Your task to perform on an android device: check out phone information Image 0: 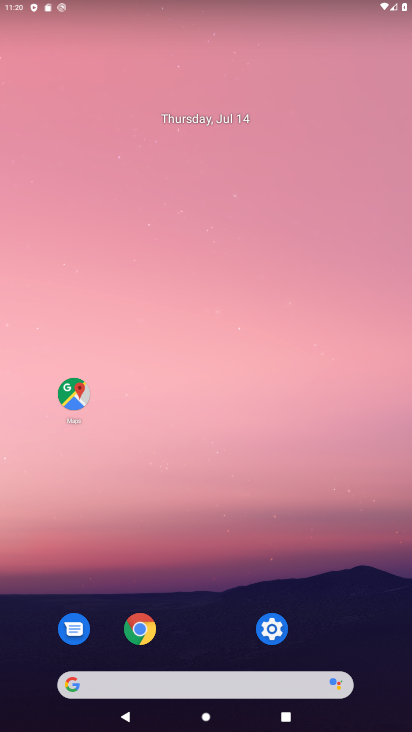
Step 0: click (269, 618)
Your task to perform on an android device: check out phone information Image 1: 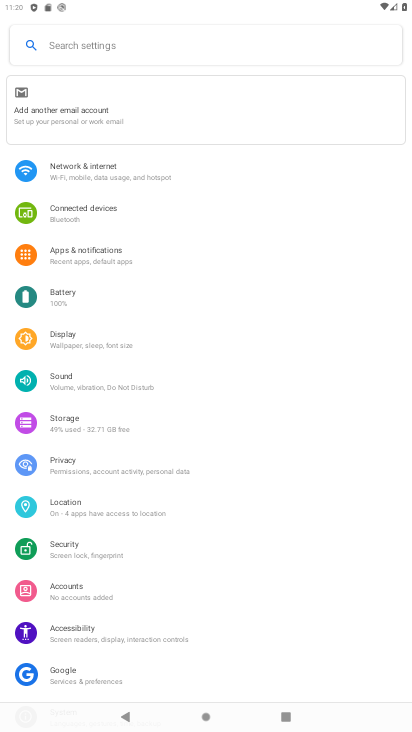
Step 1: click (70, 50)
Your task to perform on an android device: check out phone information Image 2: 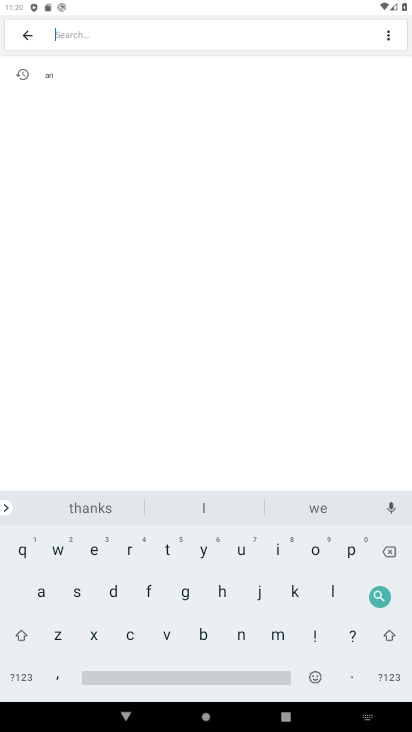
Step 2: click (37, 593)
Your task to perform on an android device: check out phone information Image 3: 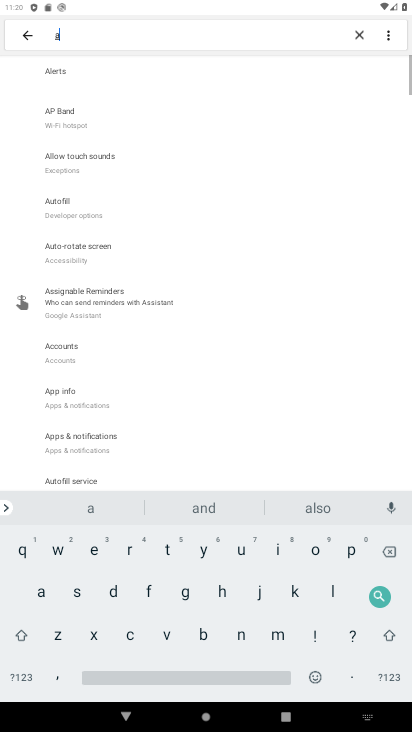
Step 3: click (201, 635)
Your task to perform on an android device: check out phone information Image 4: 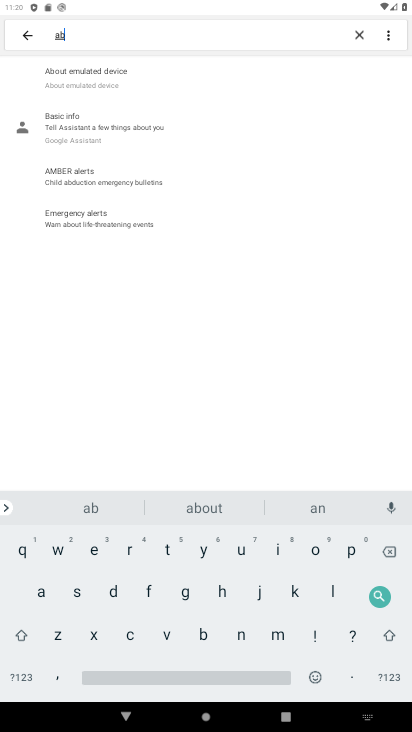
Step 4: click (117, 74)
Your task to perform on an android device: check out phone information Image 5: 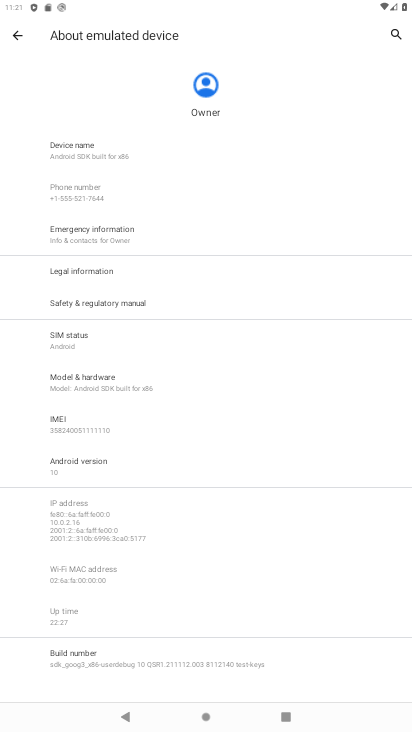
Step 5: task complete